Your task to perform on an android device: Open Google Chrome Image 0: 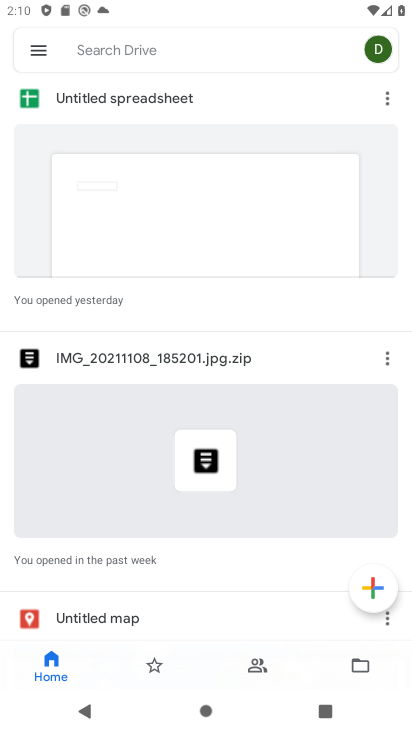
Step 0: press home button
Your task to perform on an android device: Open Google Chrome Image 1: 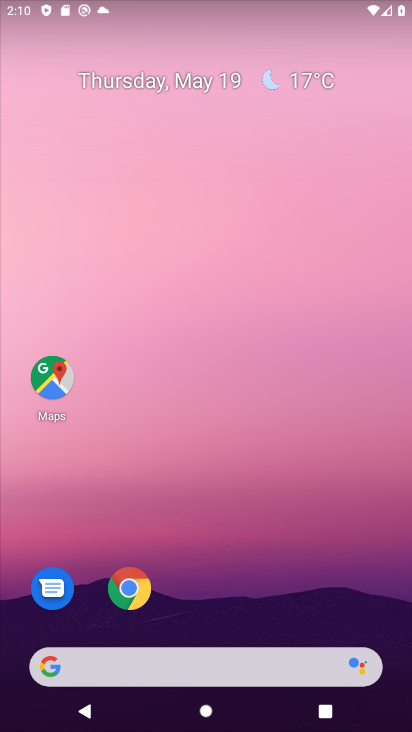
Step 1: click (132, 591)
Your task to perform on an android device: Open Google Chrome Image 2: 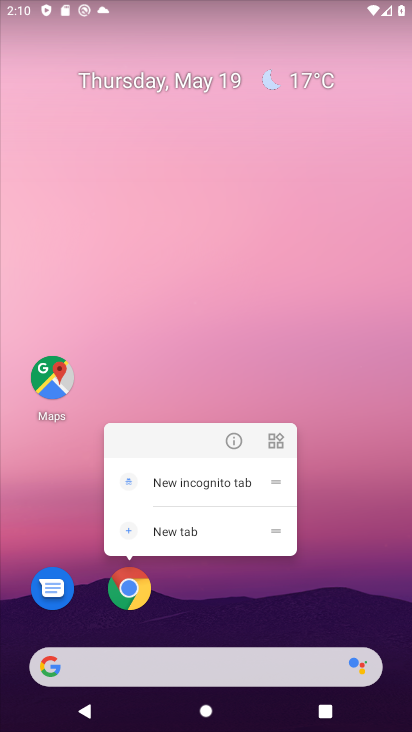
Step 2: click (127, 591)
Your task to perform on an android device: Open Google Chrome Image 3: 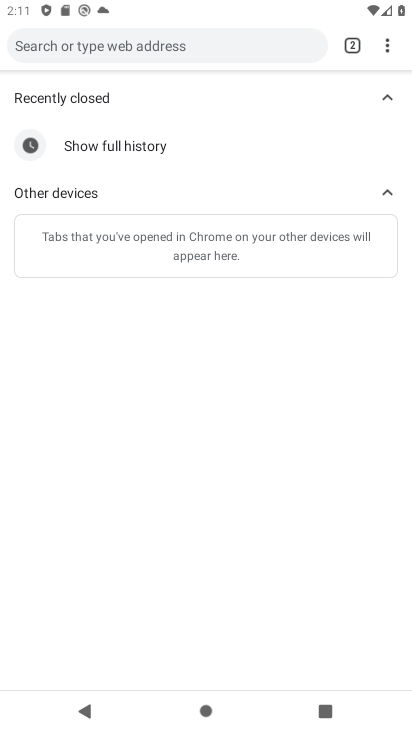
Step 3: press home button
Your task to perform on an android device: Open Google Chrome Image 4: 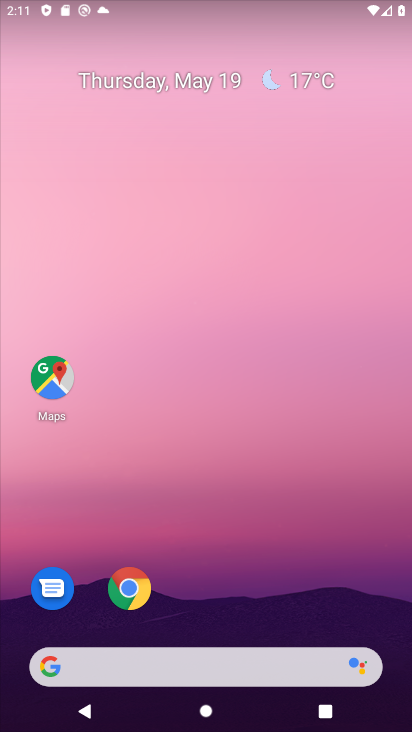
Step 4: click (134, 581)
Your task to perform on an android device: Open Google Chrome Image 5: 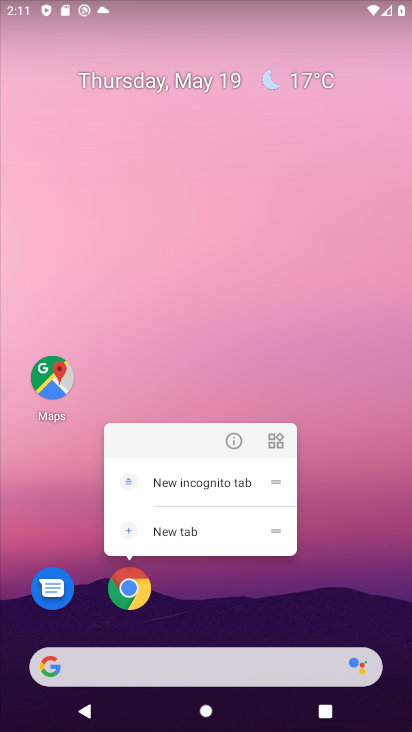
Step 5: click (131, 586)
Your task to perform on an android device: Open Google Chrome Image 6: 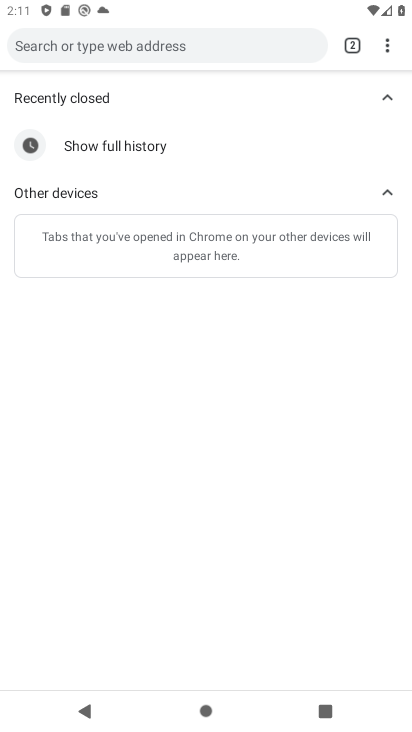
Step 6: task complete